Your task to perform on an android device: Go to accessibility settings Image 0: 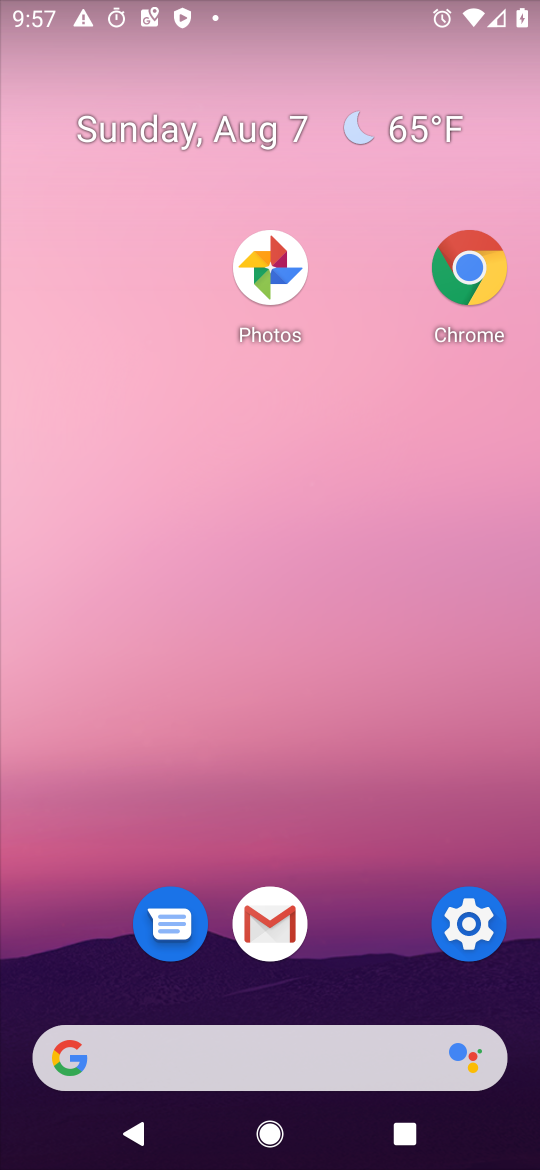
Step 0: drag from (378, 1061) to (255, 421)
Your task to perform on an android device: Go to accessibility settings Image 1: 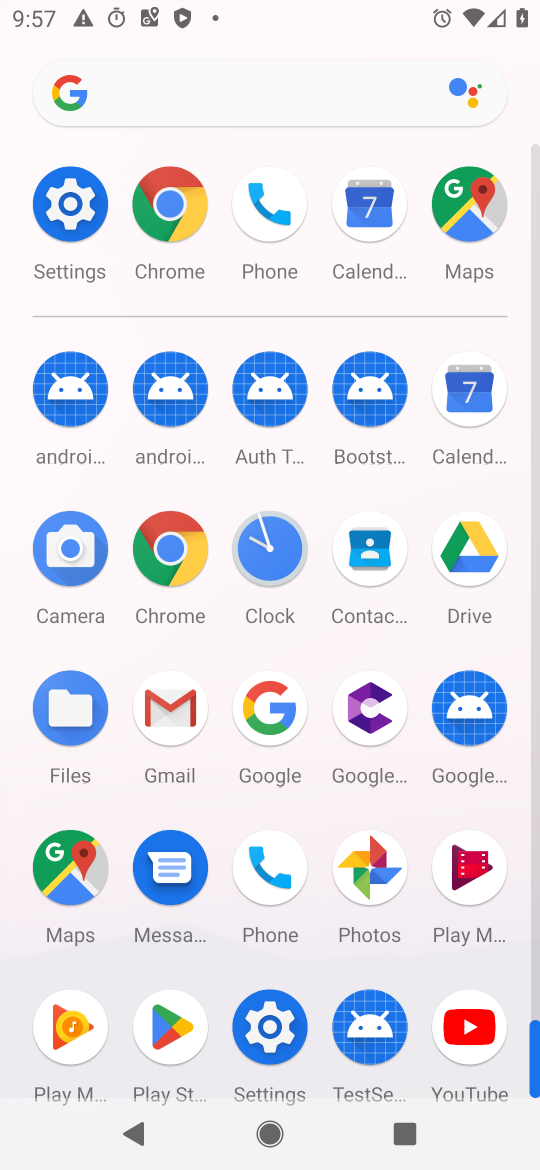
Step 1: click (52, 218)
Your task to perform on an android device: Go to accessibility settings Image 2: 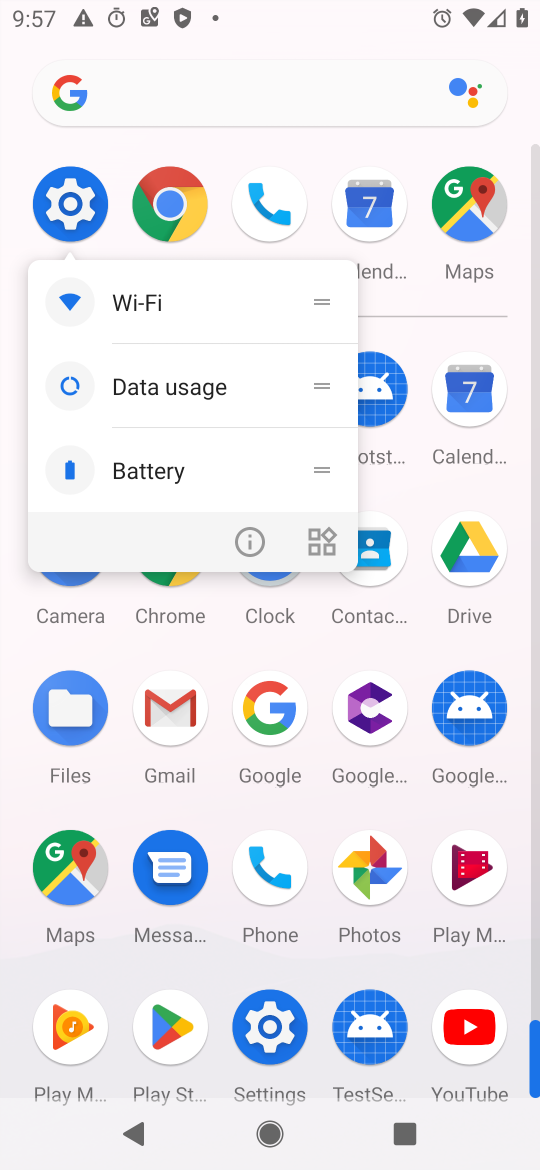
Step 2: click (34, 208)
Your task to perform on an android device: Go to accessibility settings Image 3: 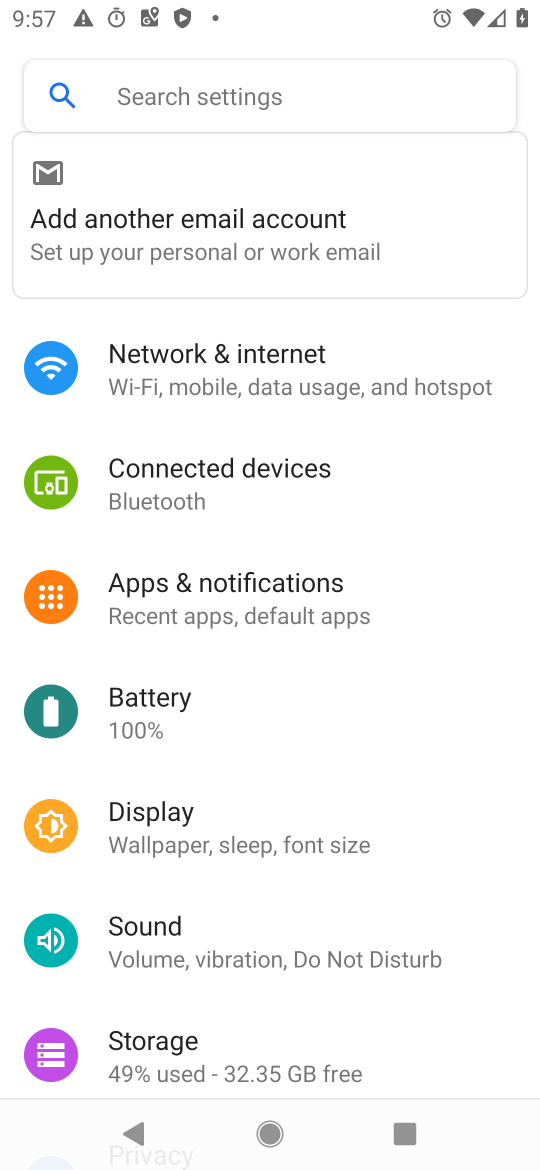
Step 3: click (194, 90)
Your task to perform on an android device: Go to accessibility settings Image 4: 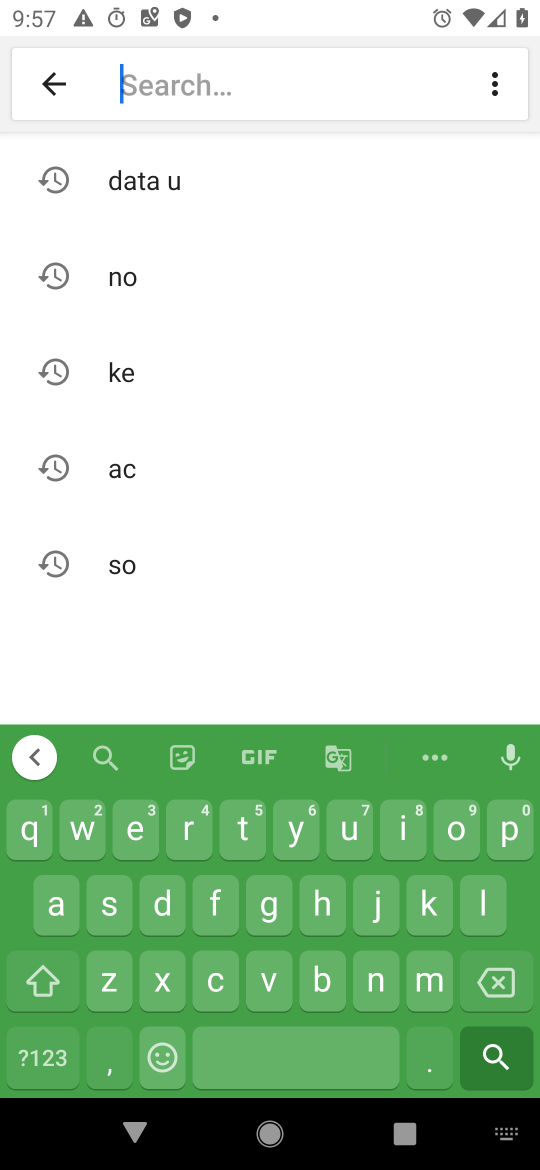
Step 4: click (42, 905)
Your task to perform on an android device: Go to accessibility settings Image 5: 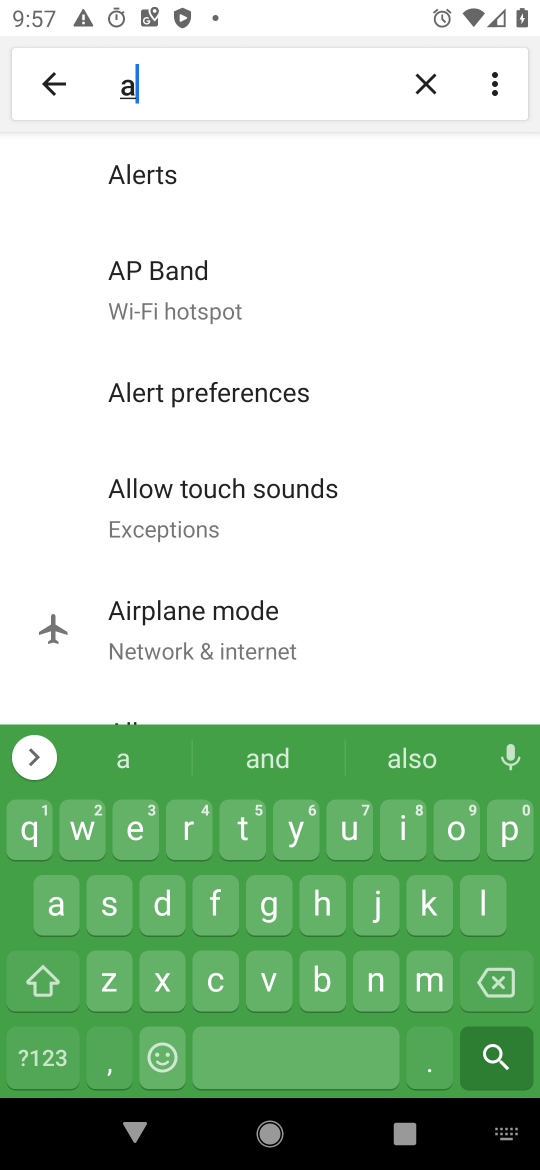
Step 5: click (202, 988)
Your task to perform on an android device: Go to accessibility settings Image 6: 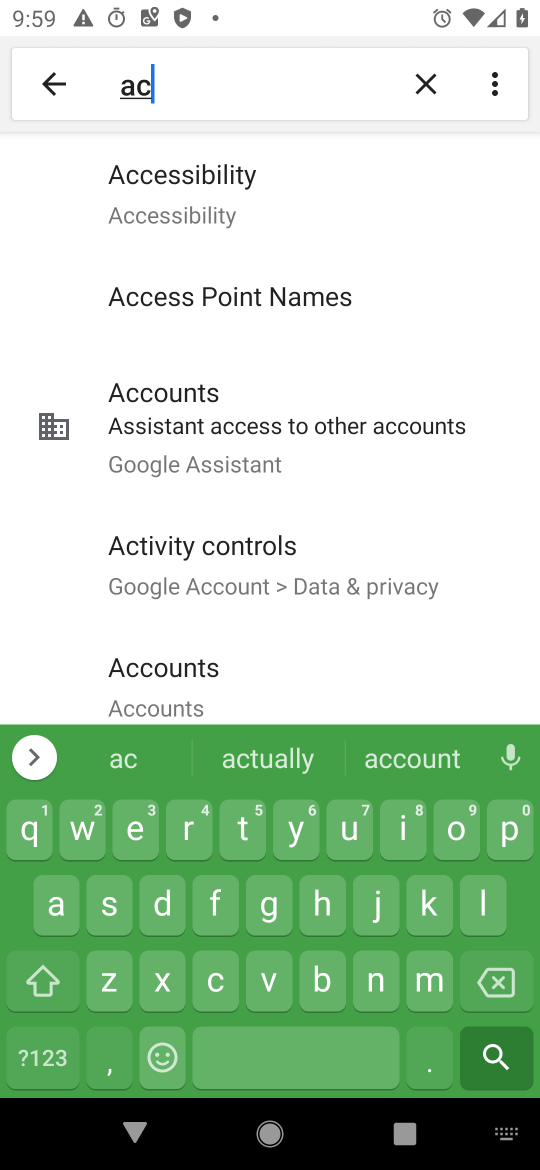
Step 6: click (289, 197)
Your task to perform on an android device: Go to accessibility settings Image 7: 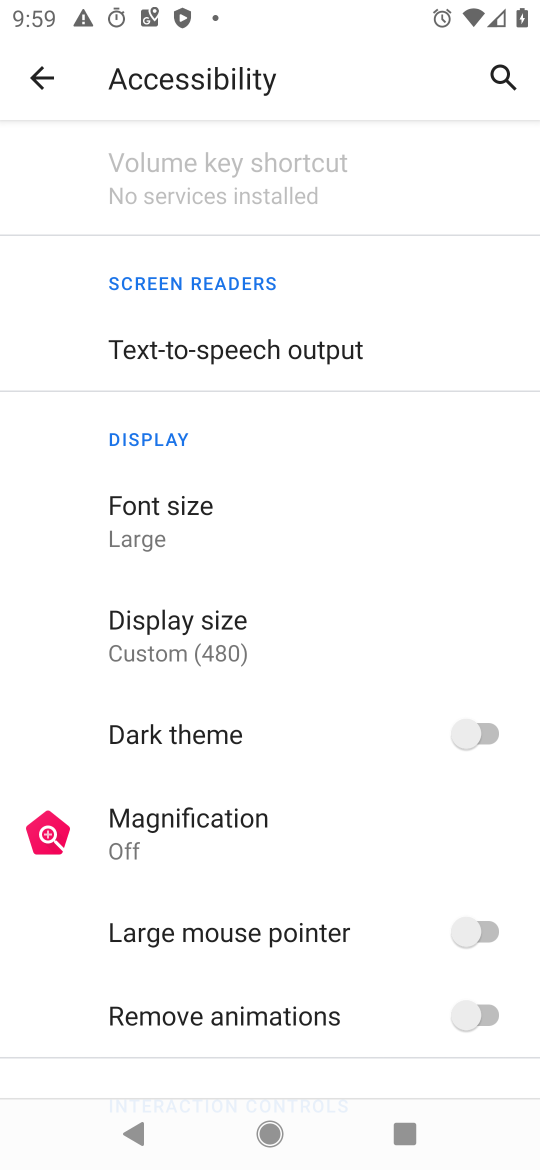
Step 7: task complete